Your task to perform on an android device: set the timer Image 0: 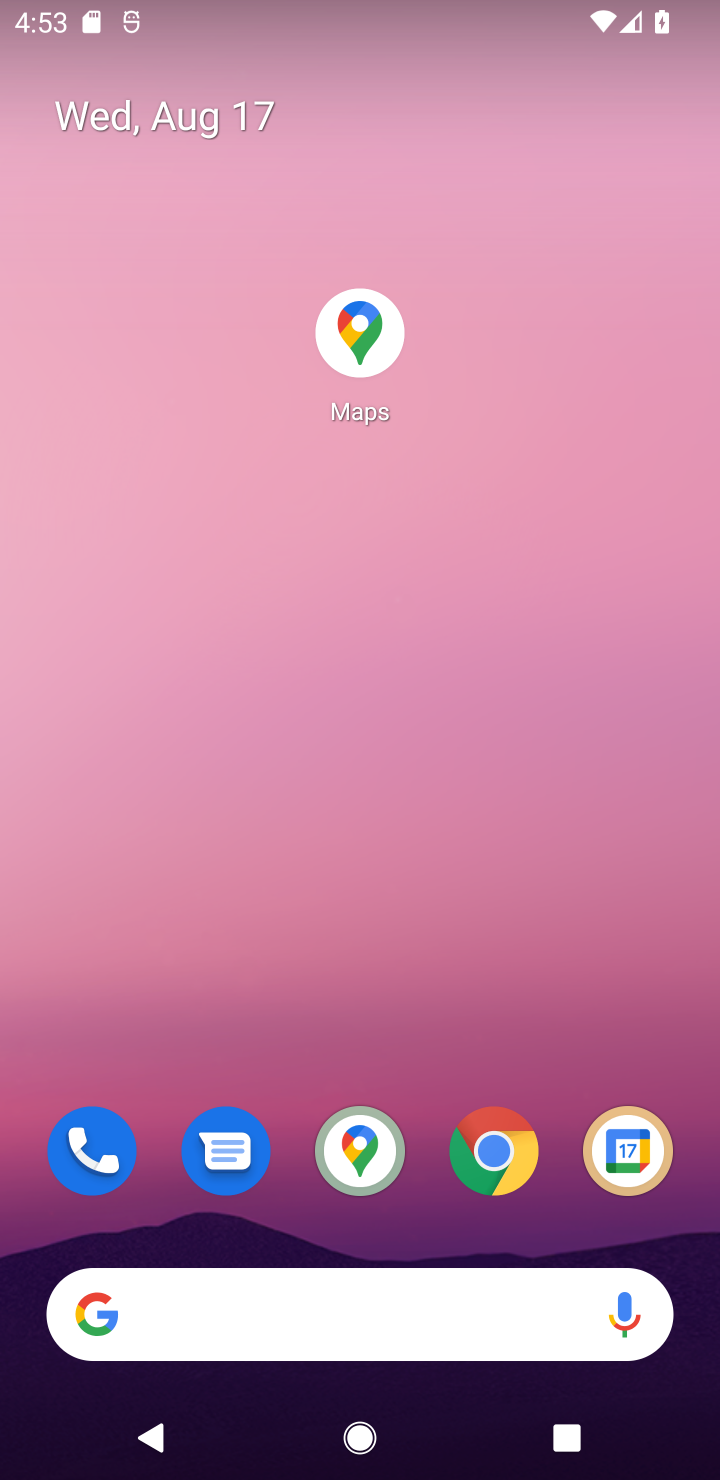
Step 0: drag from (323, 1039) to (463, 171)
Your task to perform on an android device: set the timer Image 1: 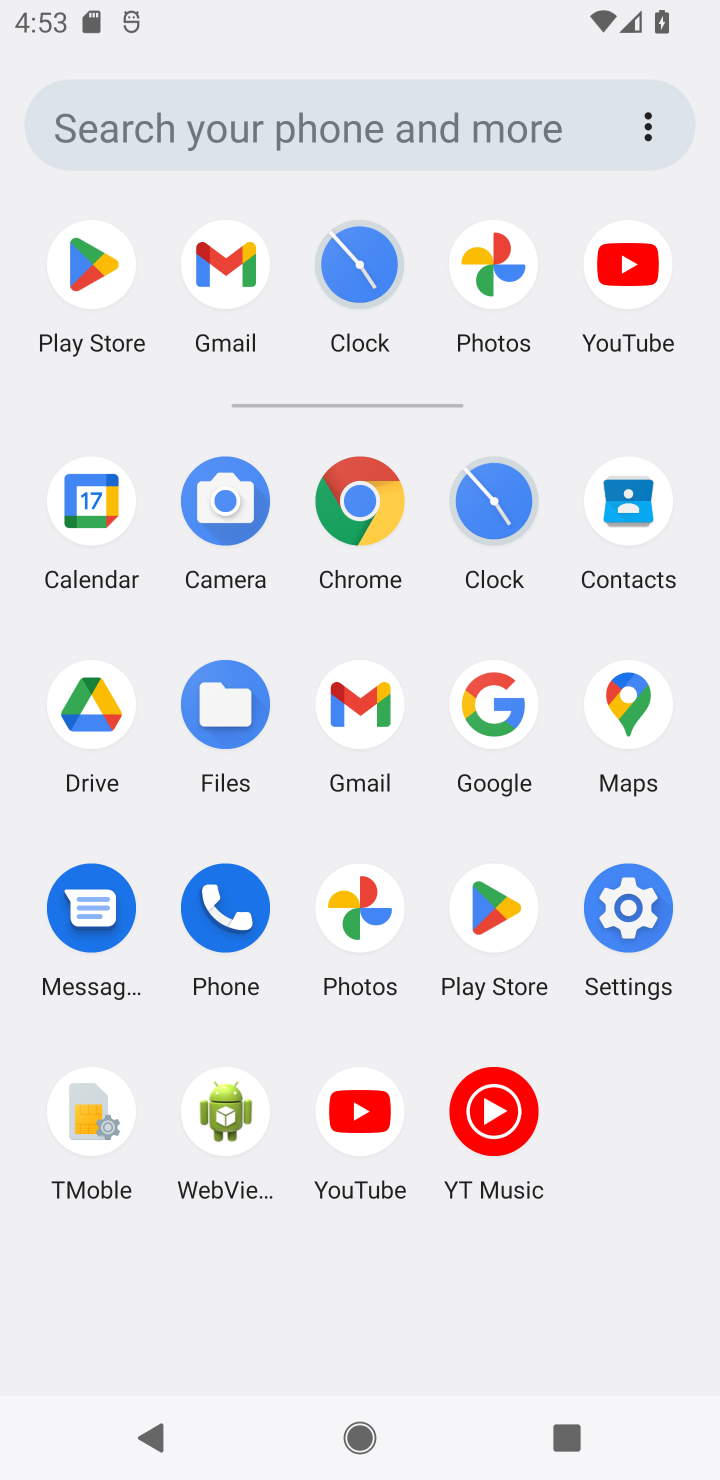
Step 1: click (485, 508)
Your task to perform on an android device: set the timer Image 2: 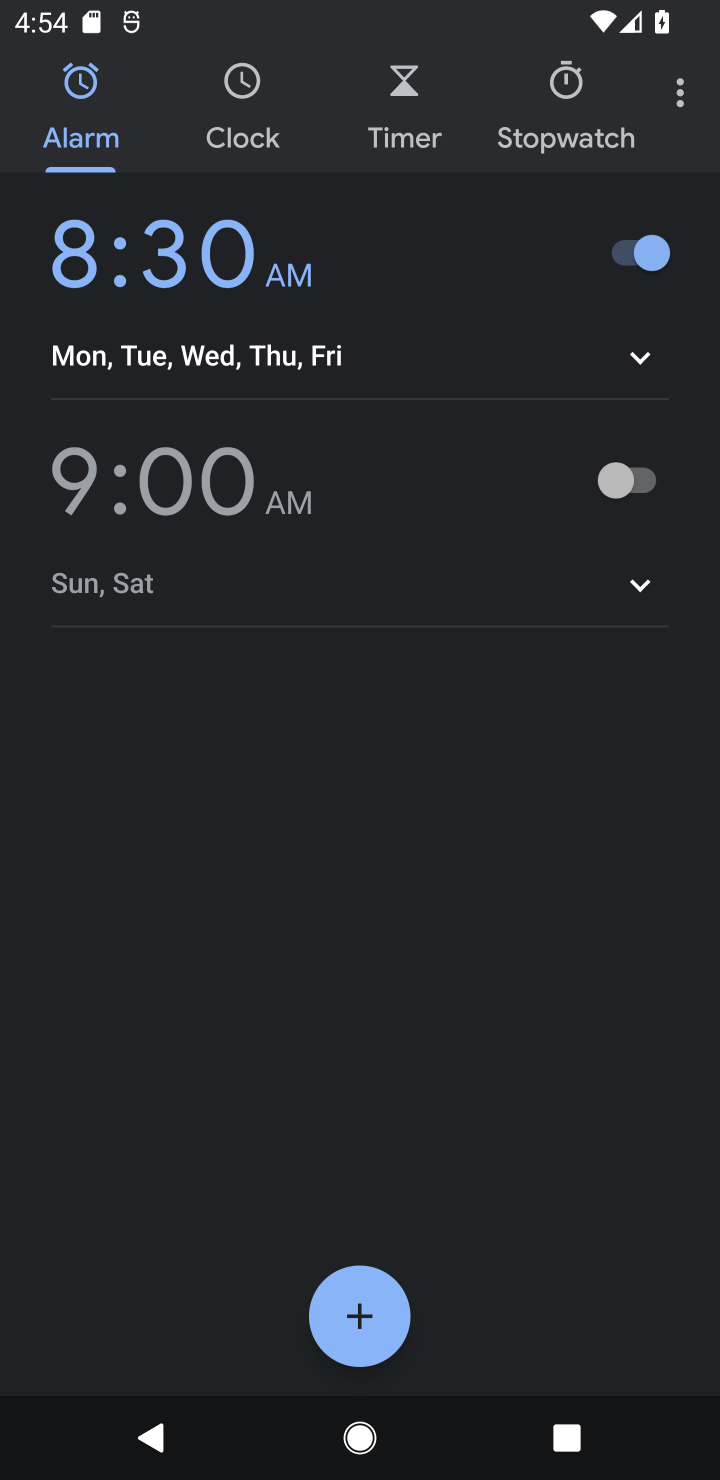
Step 2: click (382, 100)
Your task to perform on an android device: set the timer Image 3: 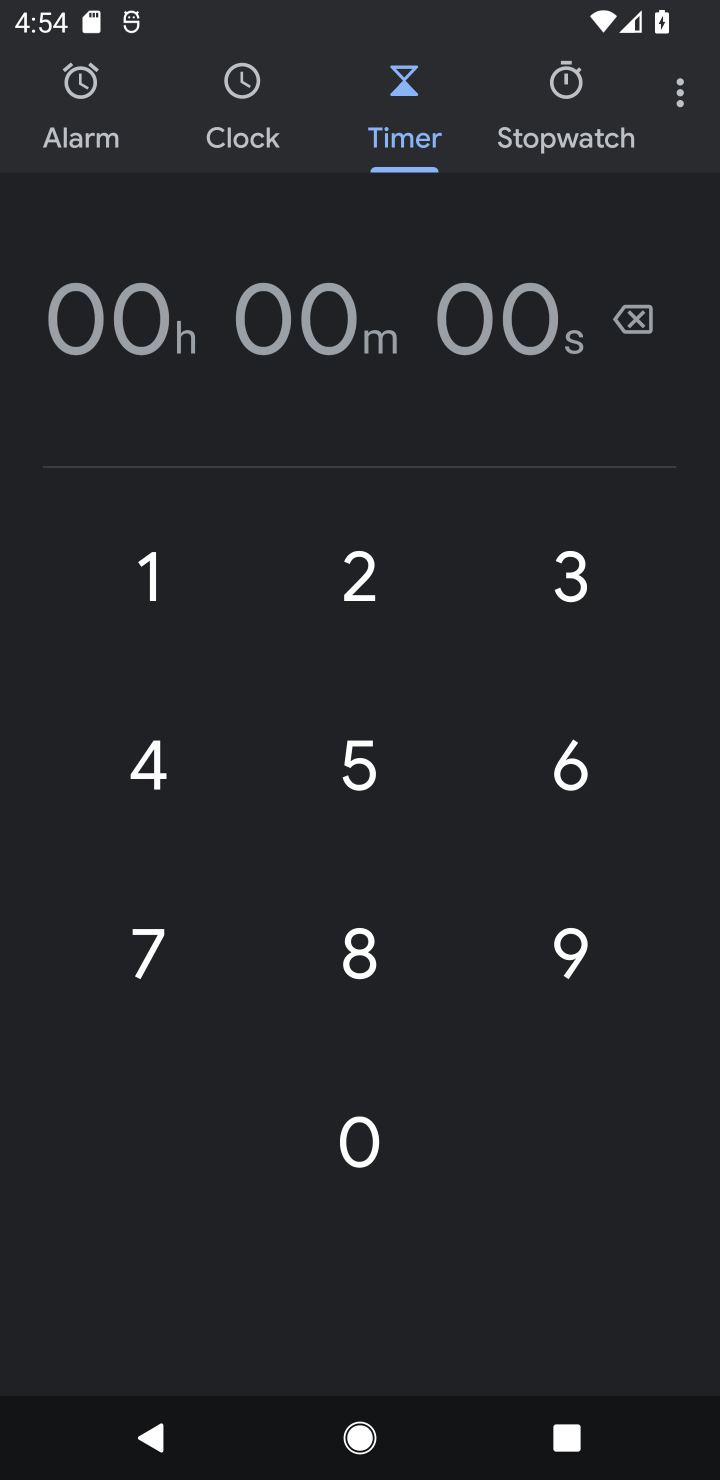
Step 3: click (284, 303)
Your task to perform on an android device: set the timer Image 4: 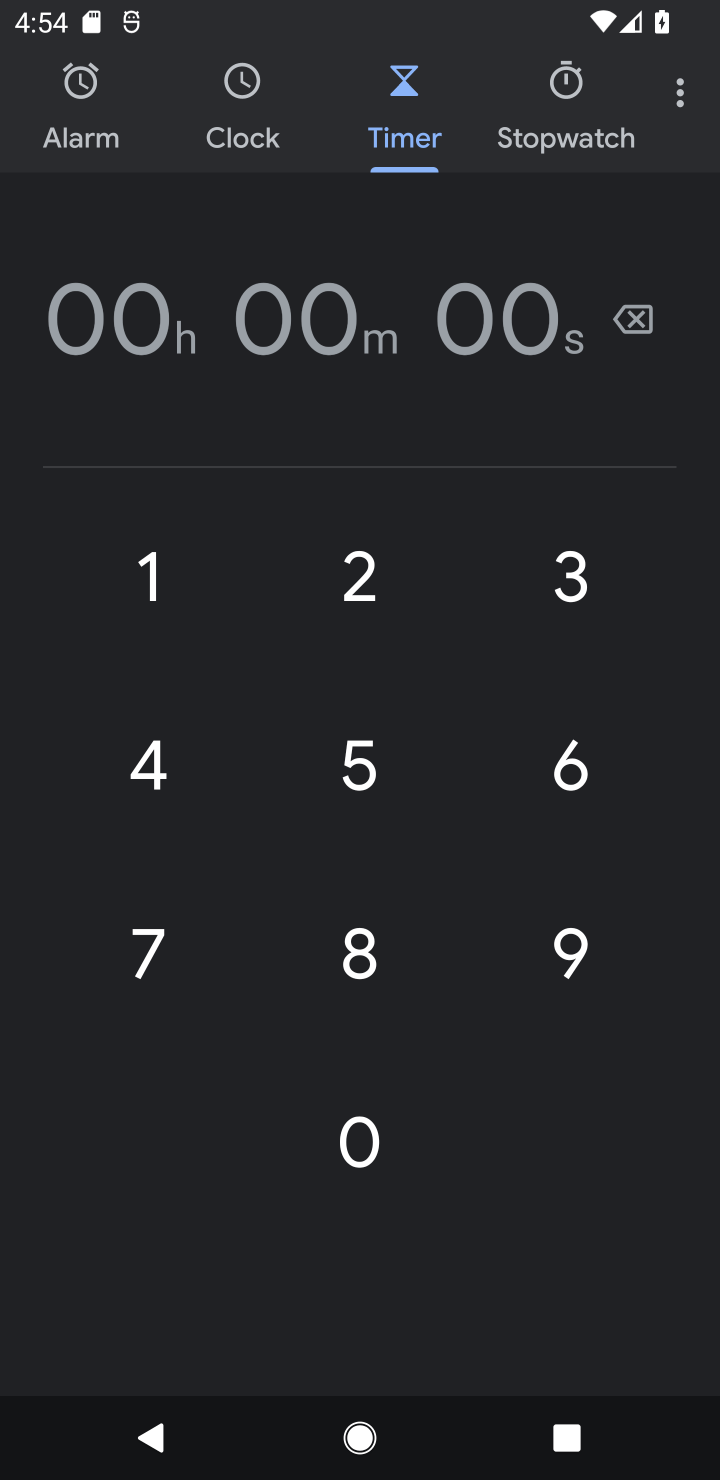
Step 4: type "787878787 "
Your task to perform on an android device: set the timer Image 5: 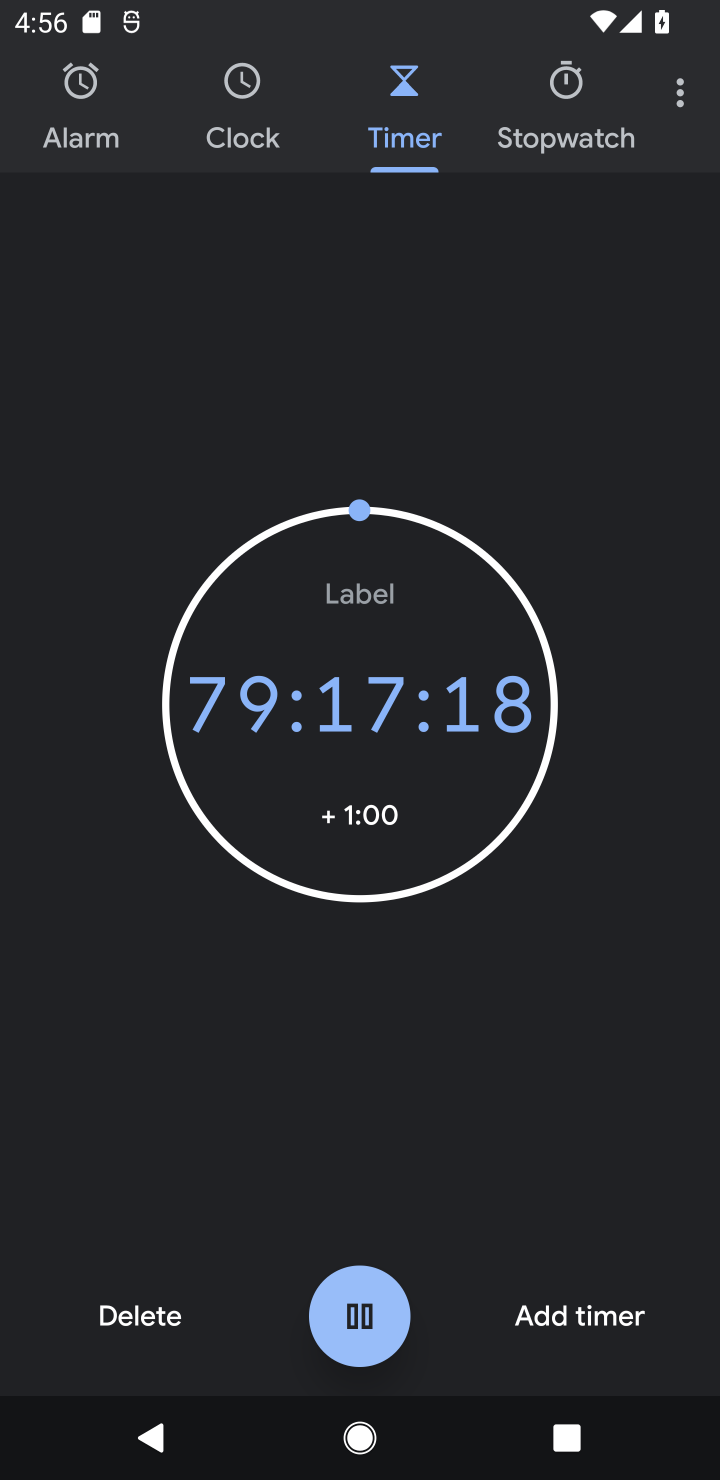
Step 5: task complete